Your task to perform on an android device: toggle improve location accuracy Image 0: 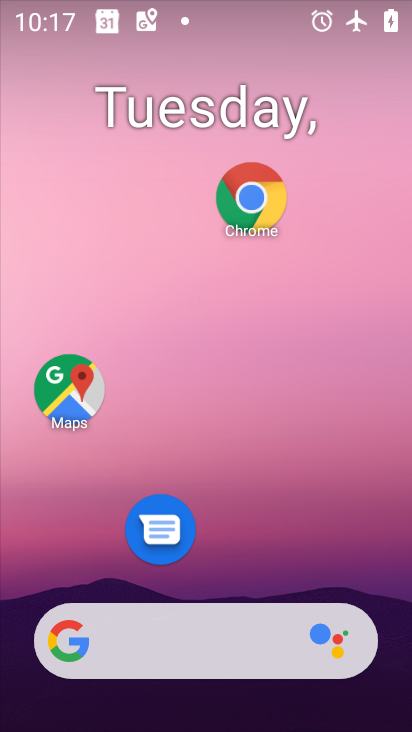
Step 0: drag from (368, 543) to (381, 112)
Your task to perform on an android device: toggle improve location accuracy Image 1: 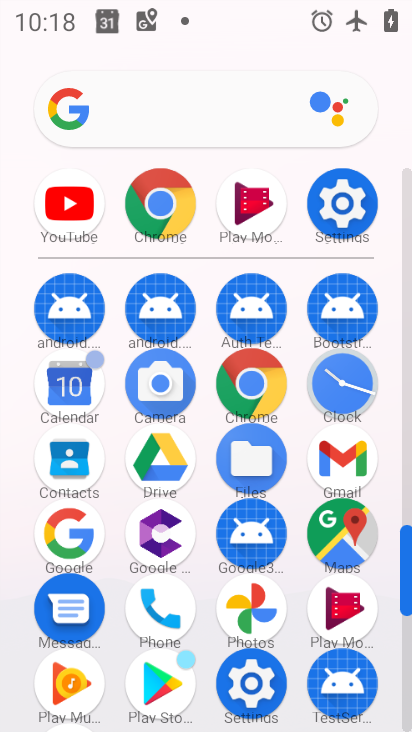
Step 1: click (321, 209)
Your task to perform on an android device: toggle improve location accuracy Image 2: 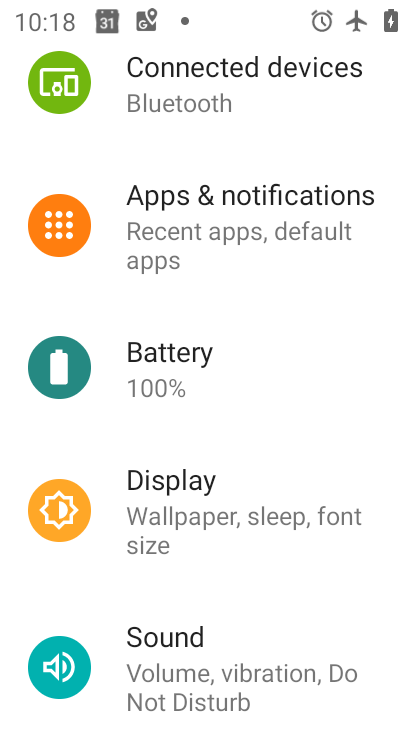
Step 2: drag from (218, 518) to (252, 249)
Your task to perform on an android device: toggle improve location accuracy Image 3: 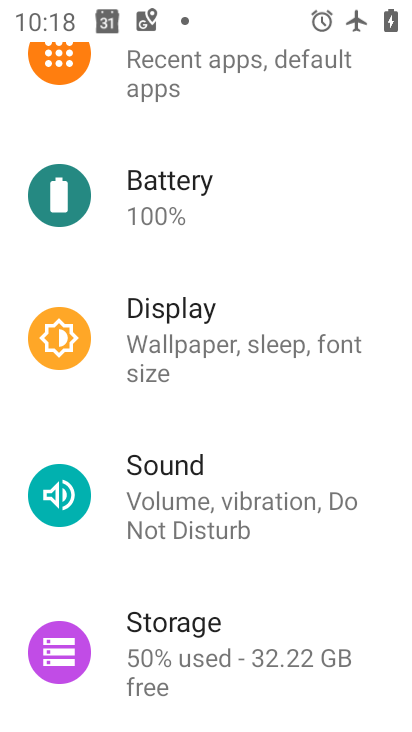
Step 3: drag from (258, 588) to (285, 221)
Your task to perform on an android device: toggle improve location accuracy Image 4: 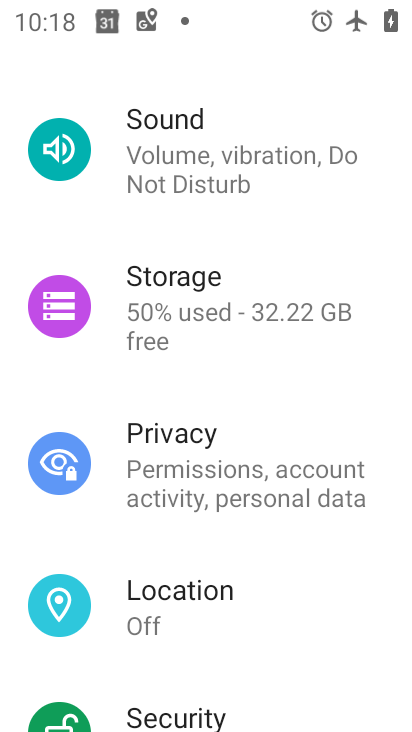
Step 4: click (236, 606)
Your task to perform on an android device: toggle improve location accuracy Image 5: 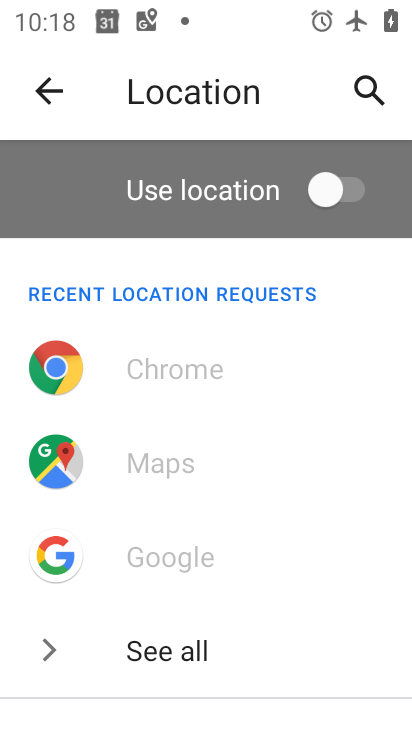
Step 5: drag from (259, 618) to (260, 187)
Your task to perform on an android device: toggle improve location accuracy Image 6: 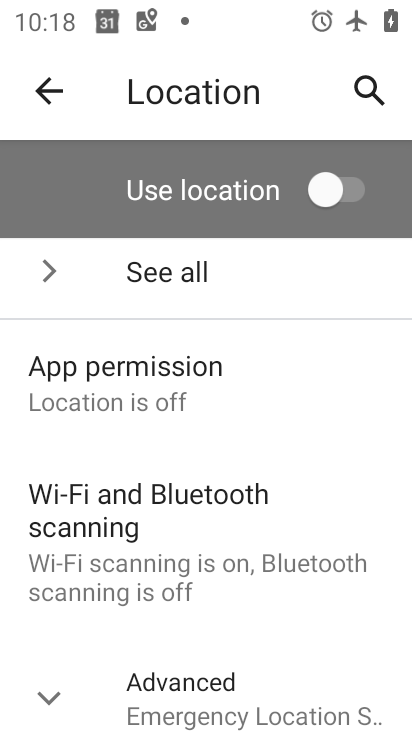
Step 6: drag from (242, 577) to (306, 359)
Your task to perform on an android device: toggle improve location accuracy Image 7: 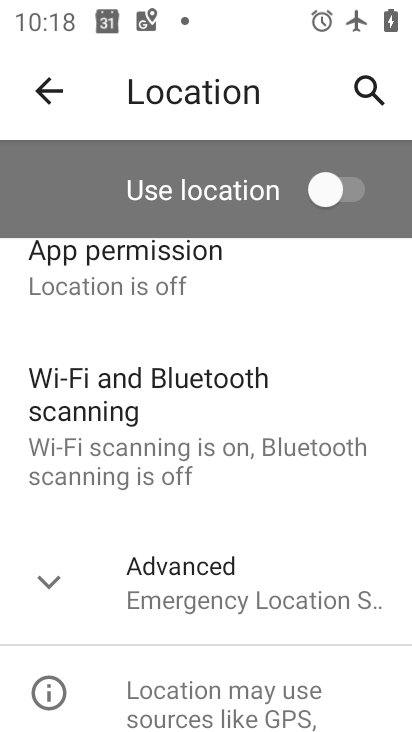
Step 7: drag from (265, 522) to (288, 265)
Your task to perform on an android device: toggle improve location accuracy Image 8: 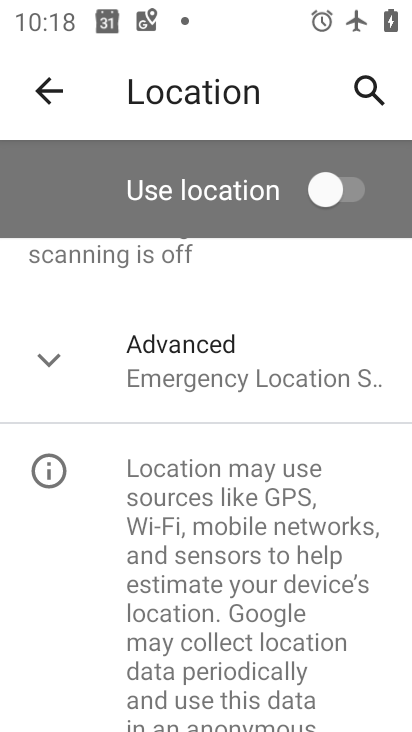
Step 8: click (270, 370)
Your task to perform on an android device: toggle improve location accuracy Image 9: 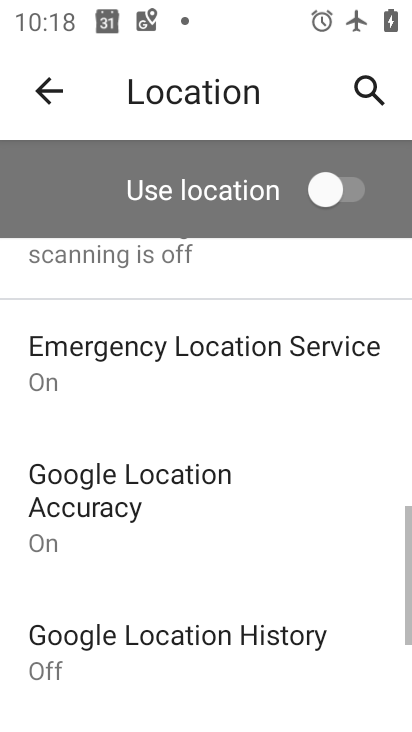
Step 9: drag from (194, 585) to (248, 363)
Your task to perform on an android device: toggle improve location accuracy Image 10: 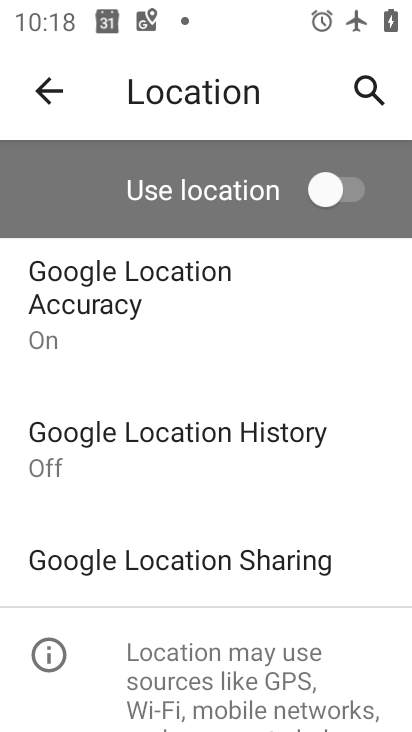
Step 10: click (165, 297)
Your task to perform on an android device: toggle improve location accuracy Image 11: 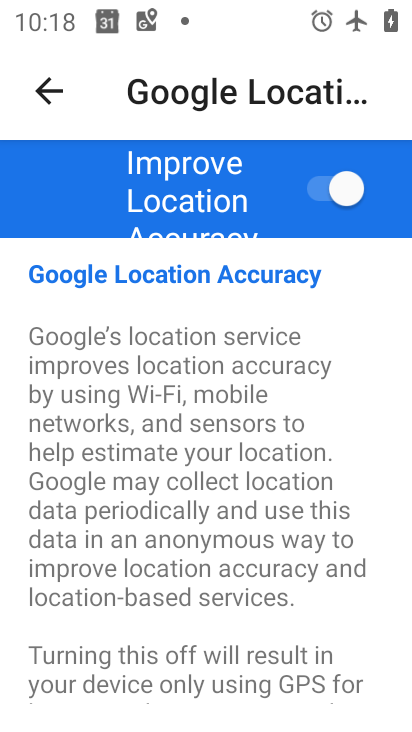
Step 11: click (318, 171)
Your task to perform on an android device: toggle improve location accuracy Image 12: 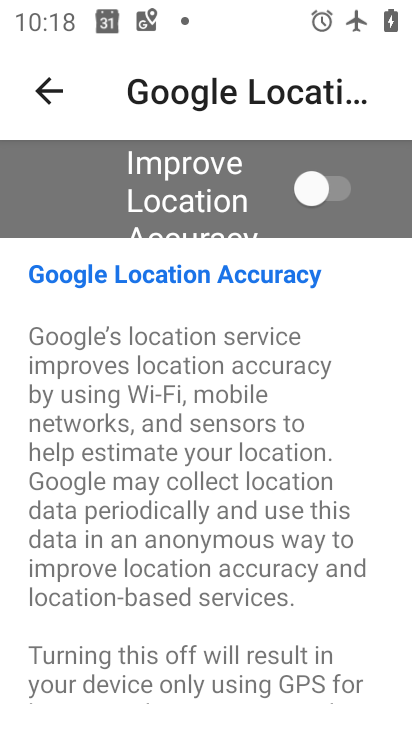
Step 12: task complete